Your task to perform on an android device: turn off data saver in the chrome app Image 0: 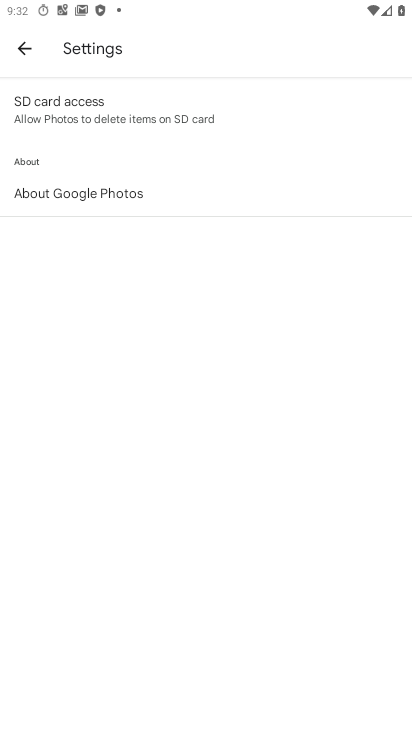
Step 0: press home button
Your task to perform on an android device: turn off data saver in the chrome app Image 1: 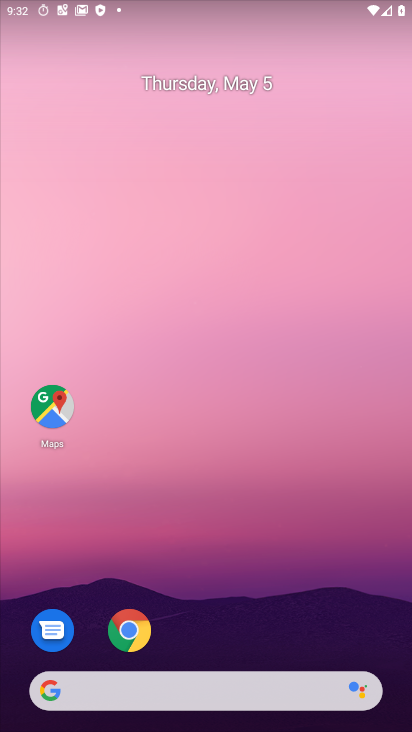
Step 1: drag from (210, 601) to (95, 165)
Your task to perform on an android device: turn off data saver in the chrome app Image 2: 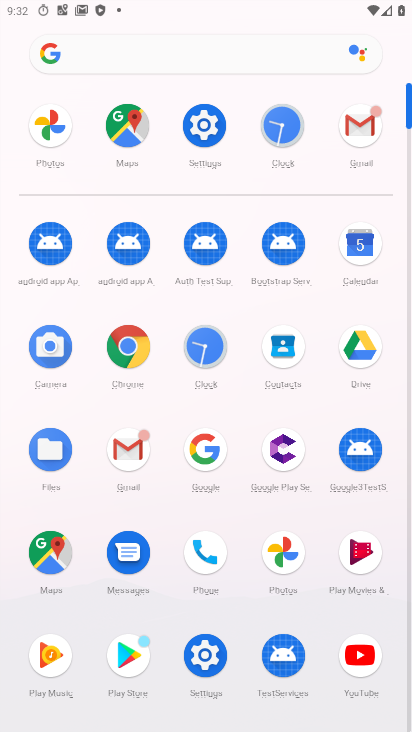
Step 2: click (124, 349)
Your task to perform on an android device: turn off data saver in the chrome app Image 3: 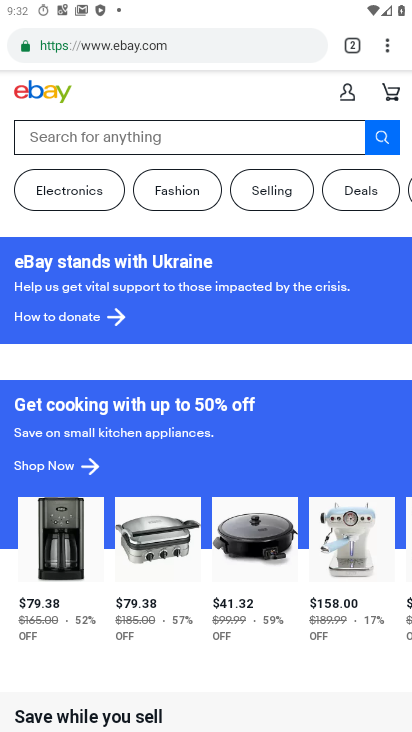
Step 3: drag from (386, 44) to (239, 551)
Your task to perform on an android device: turn off data saver in the chrome app Image 4: 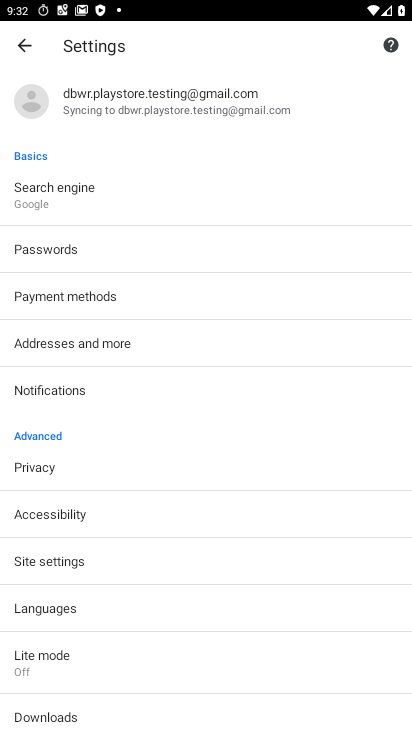
Step 4: click (29, 658)
Your task to perform on an android device: turn off data saver in the chrome app Image 5: 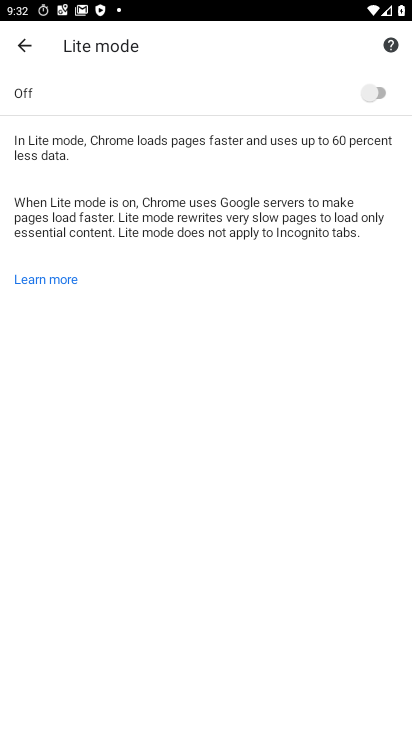
Step 5: task complete